Your task to perform on an android device: turn on the 12-hour format for clock Image 0: 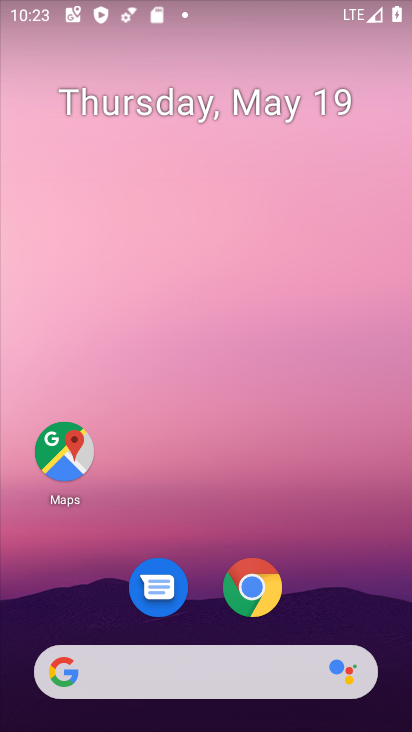
Step 0: drag from (200, 614) to (287, 2)
Your task to perform on an android device: turn on the 12-hour format for clock Image 1: 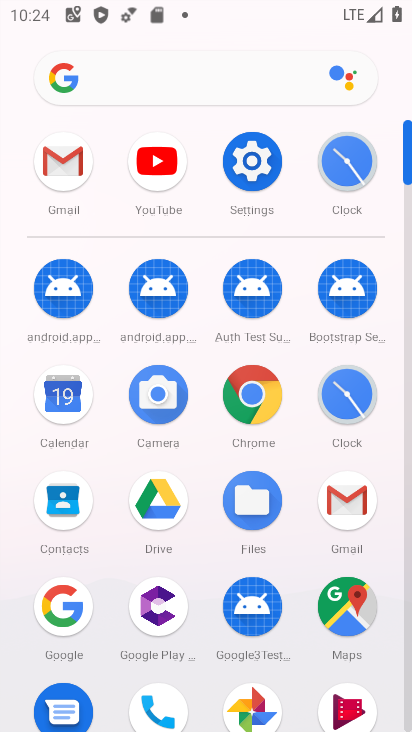
Step 1: click (340, 179)
Your task to perform on an android device: turn on the 12-hour format for clock Image 2: 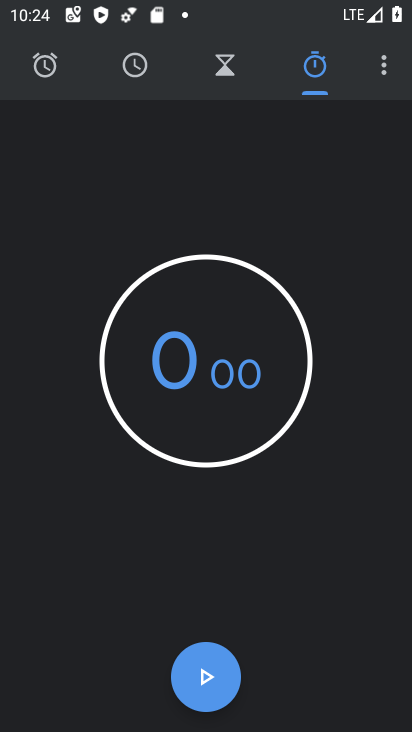
Step 2: click (372, 68)
Your task to perform on an android device: turn on the 12-hour format for clock Image 3: 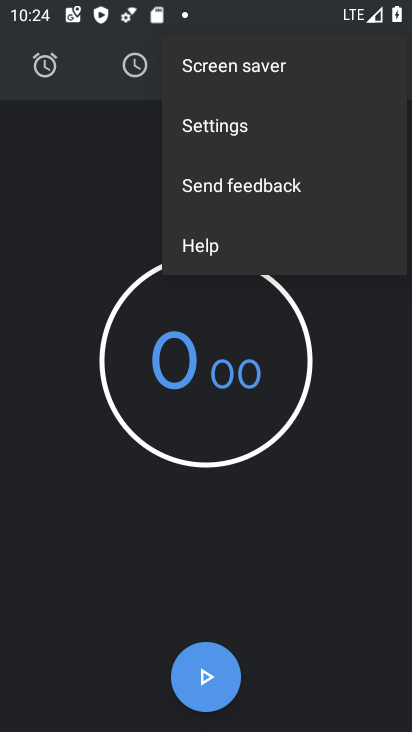
Step 3: click (246, 130)
Your task to perform on an android device: turn on the 12-hour format for clock Image 4: 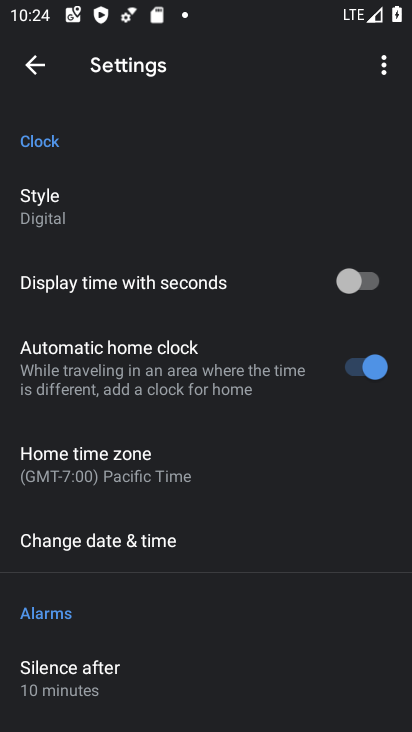
Step 4: task complete